Your task to perform on an android device: Search for seafood restaurants on Google Maps Image 0: 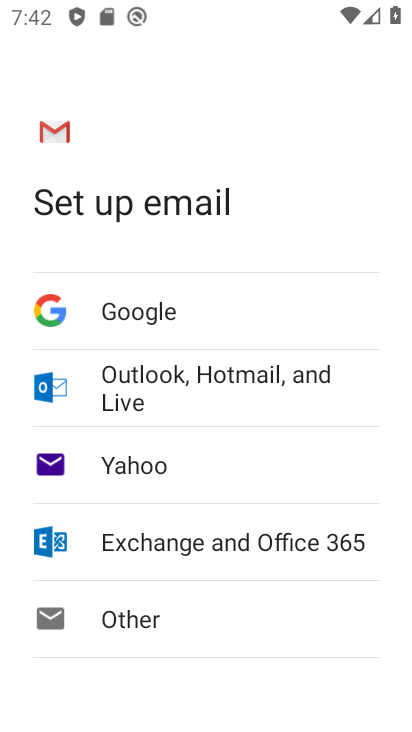
Step 0: press home button
Your task to perform on an android device: Search for seafood restaurants on Google Maps Image 1: 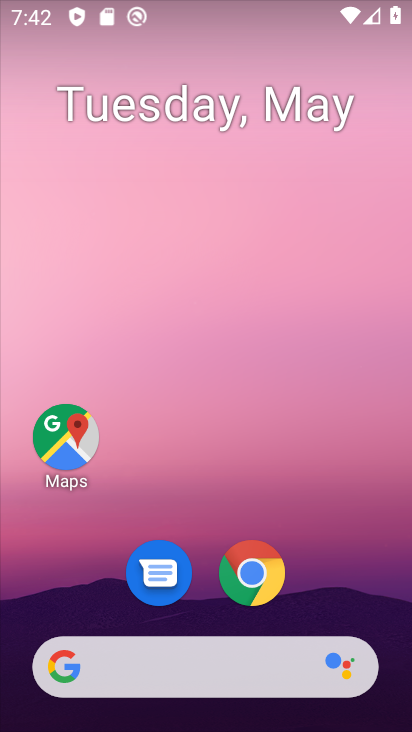
Step 1: click (64, 435)
Your task to perform on an android device: Search for seafood restaurants on Google Maps Image 2: 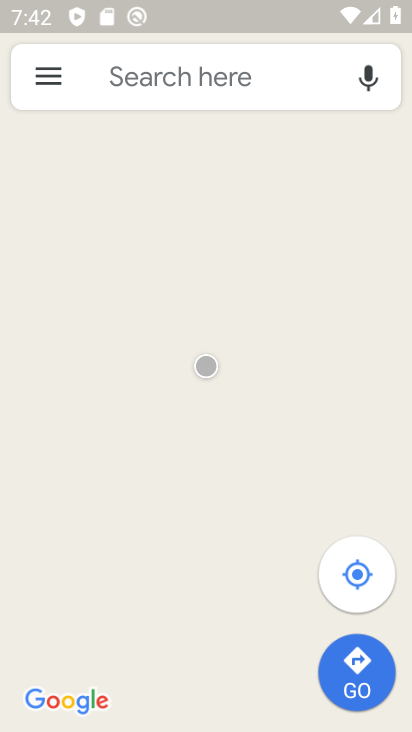
Step 2: click (154, 87)
Your task to perform on an android device: Search for seafood restaurants on Google Maps Image 3: 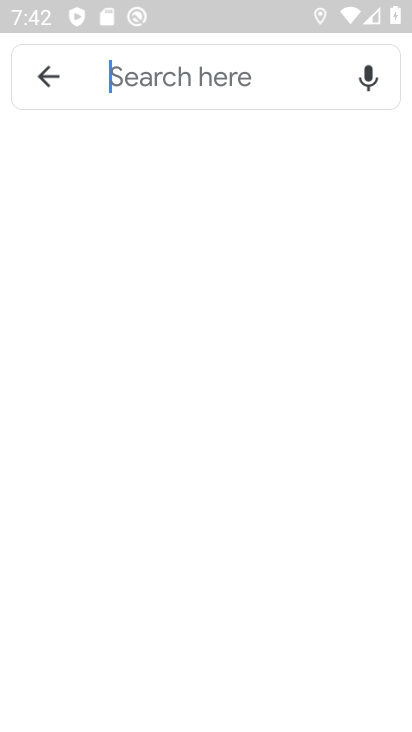
Step 3: type "seafood restaurants "
Your task to perform on an android device: Search for seafood restaurants on Google Maps Image 4: 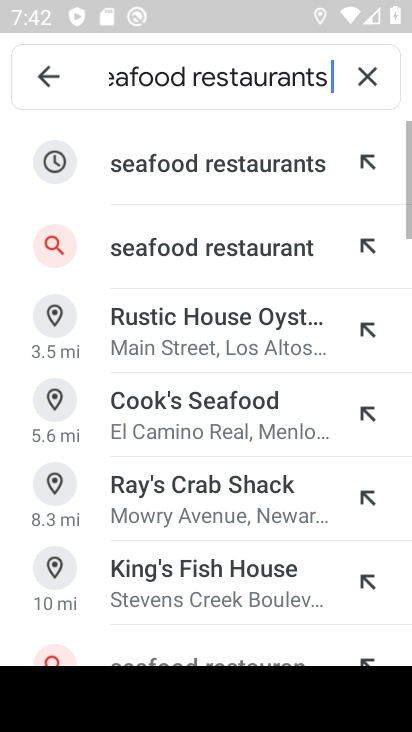
Step 4: click (180, 171)
Your task to perform on an android device: Search for seafood restaurants on Google Maps Image 5: 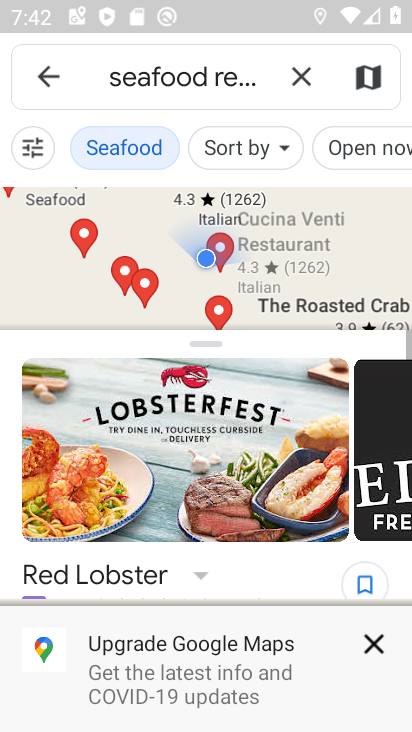
Step 5: task complete